Your task to perform on an android device: Toggle the flashlight Image 0: 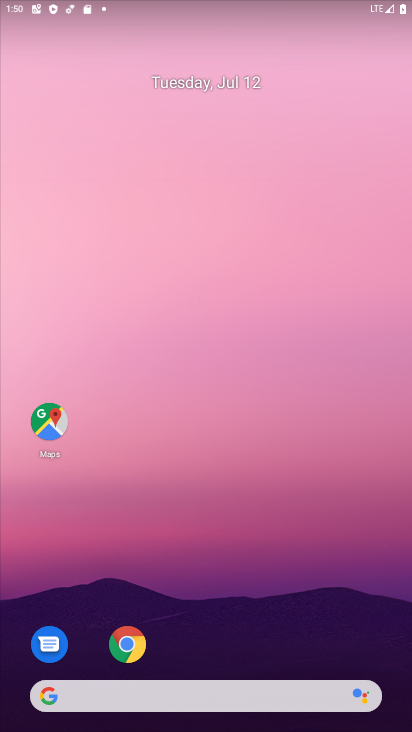
Step 0: drag from (165, 657) to (136, 114)
Your task to perform on an android device: Toggle the flashlight Image 1: 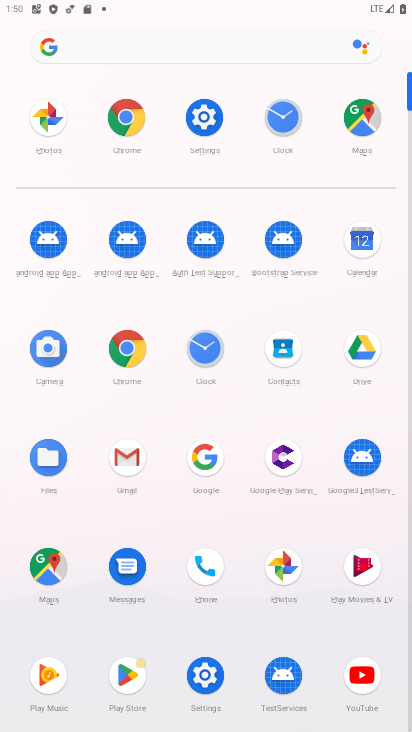
Step 1: click (206, 113)
Your task to perform on an android device: Toggle the flashlight Image 2: 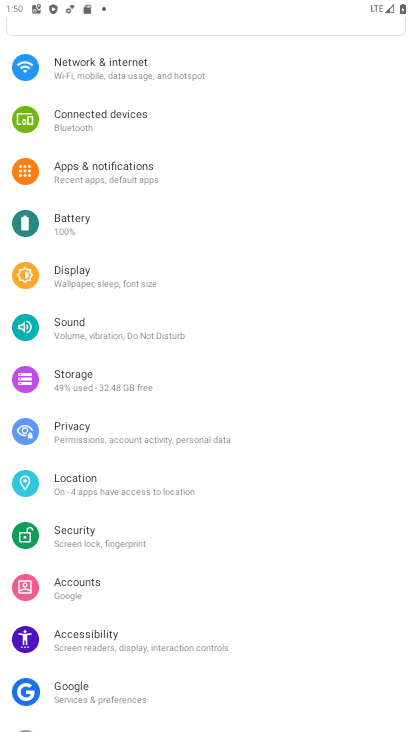
Step 2: task complete